Your task to perform on an android device: Open wifi settings Image 0: 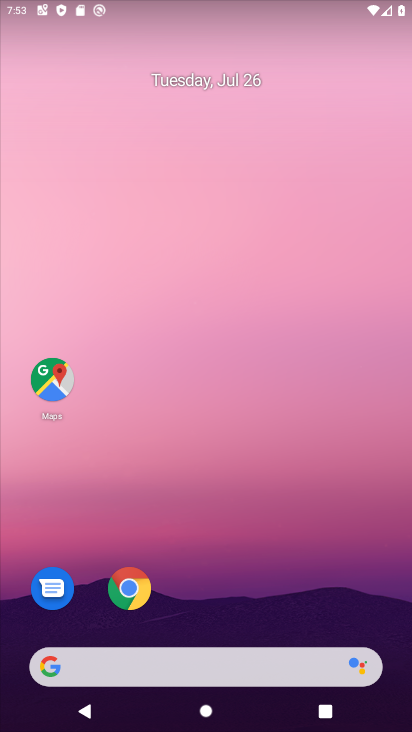
Step 0: drag from (257, 520) to (295, 99)
Your task to perform on an android device: Open wifi settings Image 1: 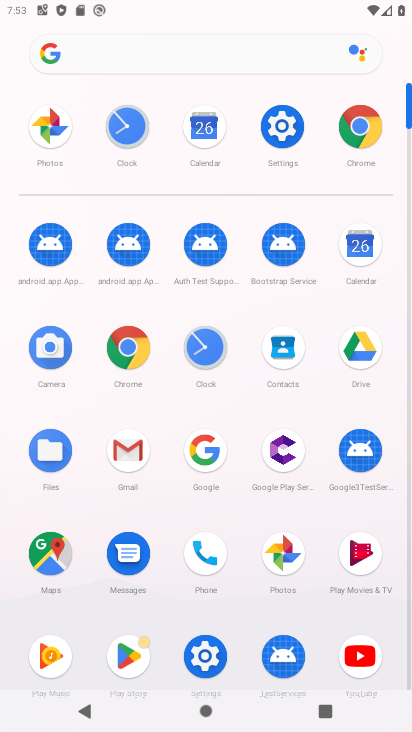
Step 1: click (204, 656)
Your task to perform on an android device: Open wifi settings Image 2: 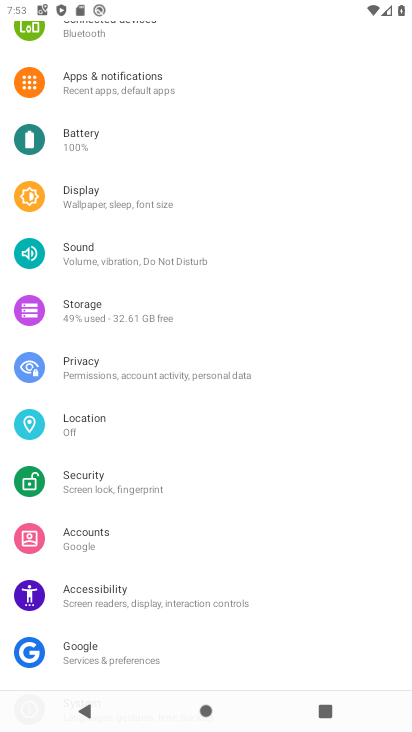
Step 2: drag from (280, 70) to (288, 274)
Your task to perform on an android device: Open wifi settings Image 3: 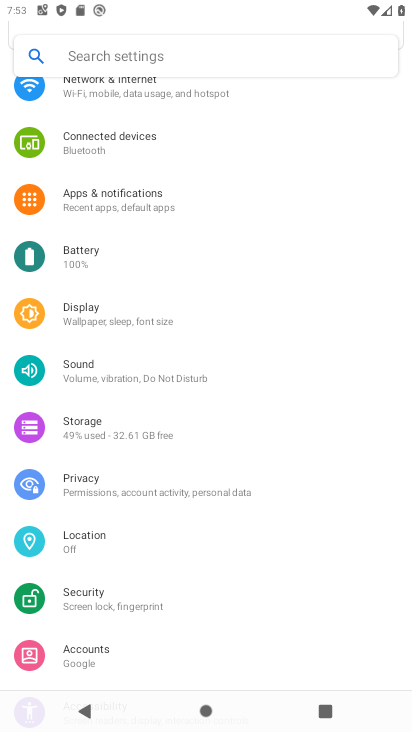
Step 3: click (237, 88)
Your task to perform on an android device: Open wifi settings Image 4: 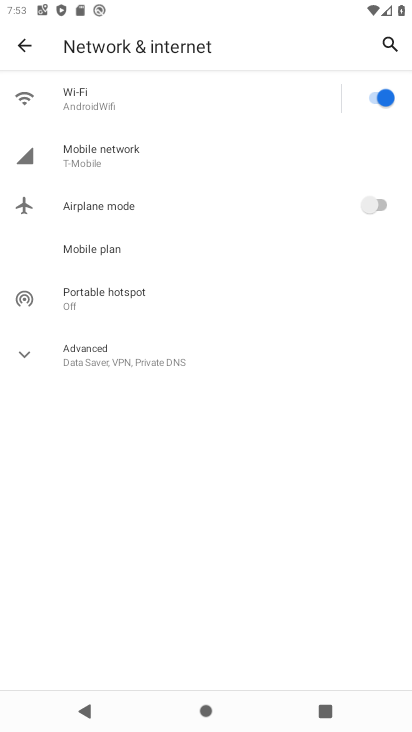
Step 4: task complete